Your task to perform on an android device: turn off location history Image 0: 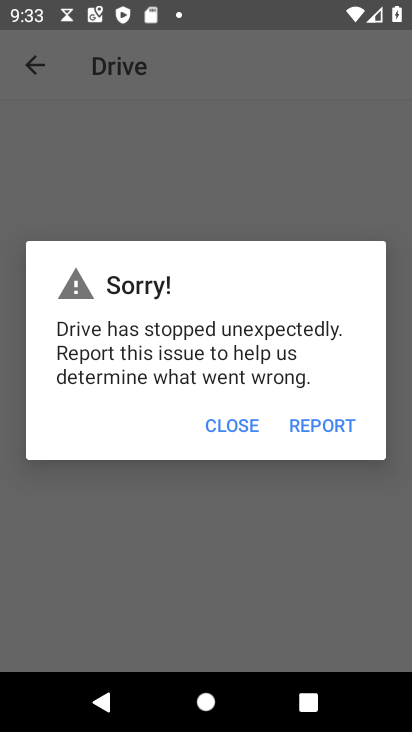
Step 0: press home button
Your task to perform on an android device: turn off location history Image 1: 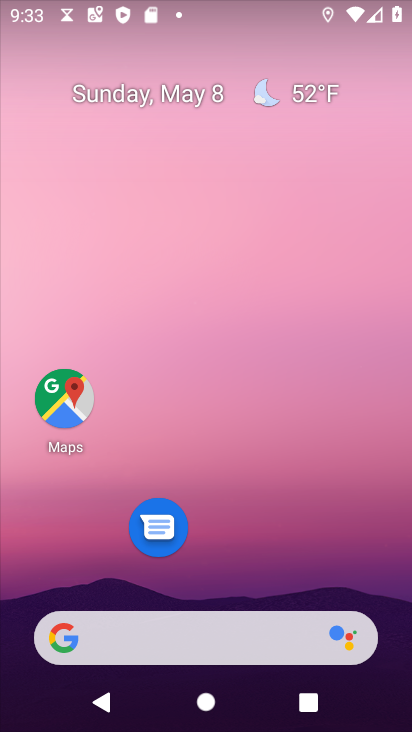
Step 1: drag from (256, 533) to (215, 34)
Your task to perform on an android device: turn off location history Image 2: 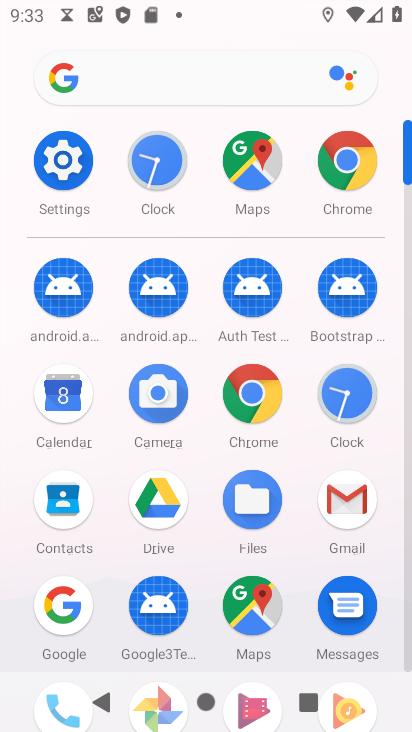
Step 2: click (62, 160)
Your task to perform on an android device: turn off location history Image 3: 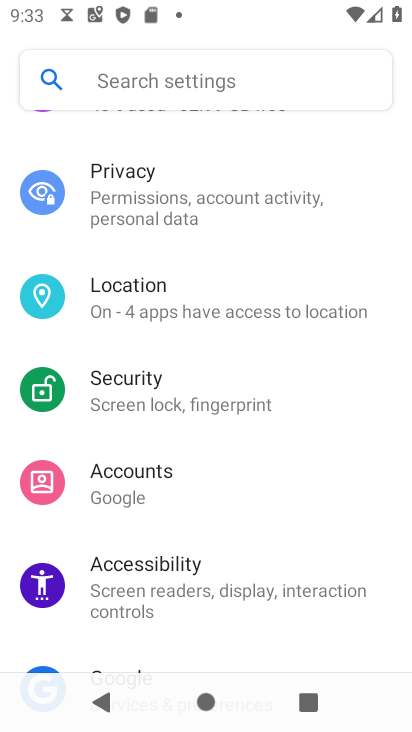
Step 3: click (218, 318)
Your task to perform on an android device: turn off location history Image 4: 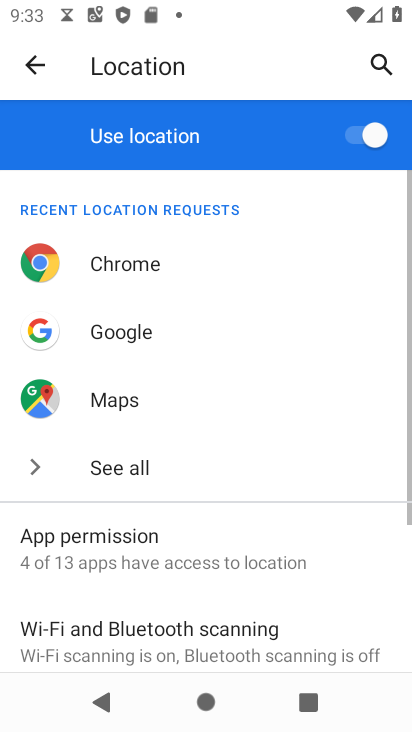
Step 4: drag from (162, 544) to (239, 386)
Your task to perform on an android device: turn off location history Image 5: 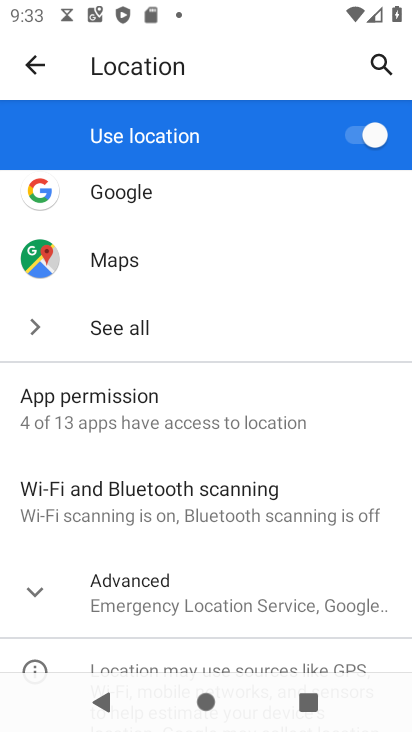
Step 5: drag from (195, 528) to (266, 301)
Your task to perform on an android device: turn off location history Image 6: 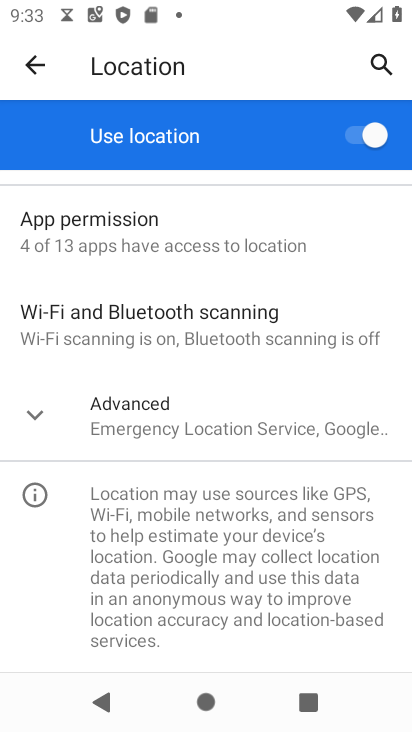
Step 6: click (199, 420)
Your task to perform on an android device: turn off location history Image 7: 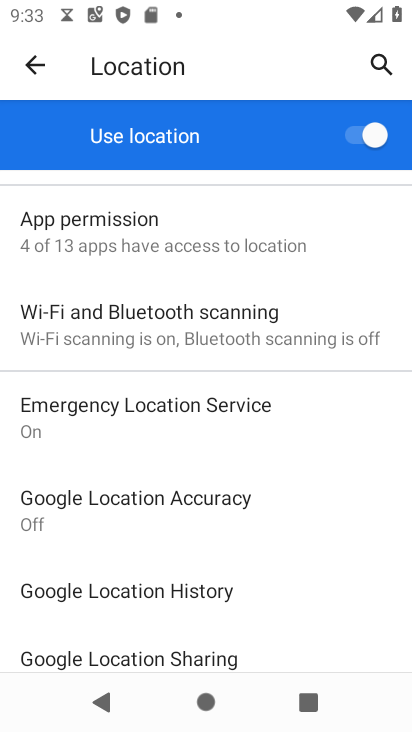
Step 7: drag from (138, 542) to (198, 447)
Your task to perform on an android device: turn off location history Image 8: 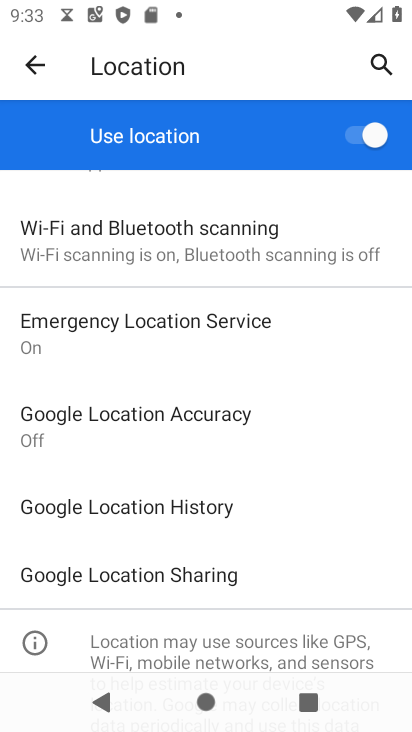
Step 8: click (153, 507)
Your task to perform on an android device: turn off location history Image 9: 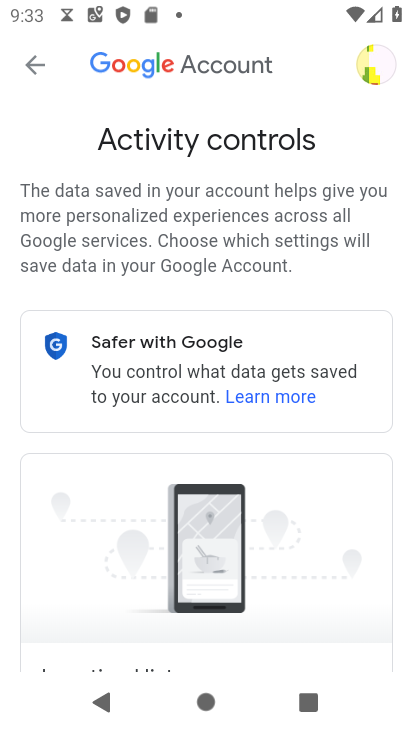
Step 9: task complete